Your task to perform on an android device: open app "Microsoft Outlook" (install if not already installed) Image 0: 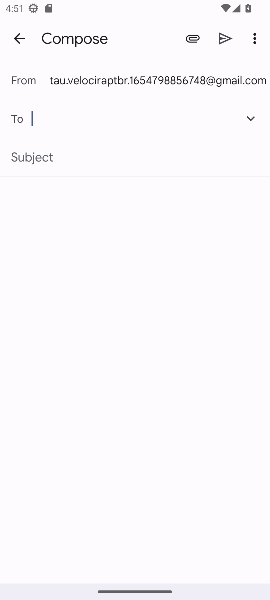
Step 0: drag from (133, 525) to (52, 141)
Your task to perform on an android device: open app "Microsoft Outlook" (install if not already installed) Image 1: 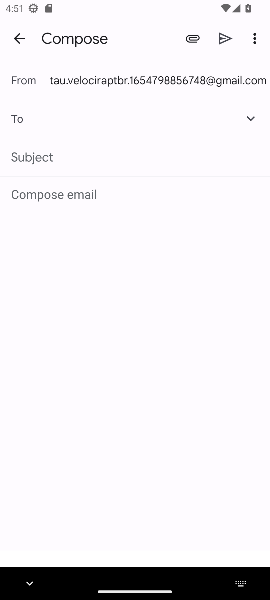
Step 1: press home button
Your task to perform on an android device: open app "Microsoft Outlook" (install if not already installed) Image 2: 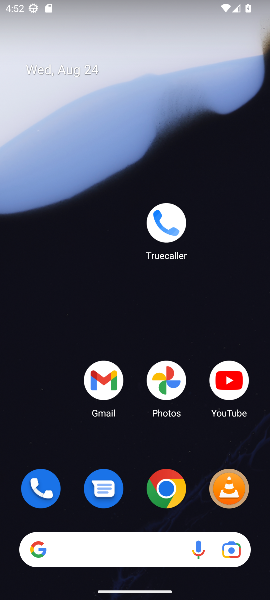
Step 2: drag from (133, 526) to (92, 166)
Your task to perform on an android device: open app "Microsoft Outlook" (install if not already installed) Image 3: 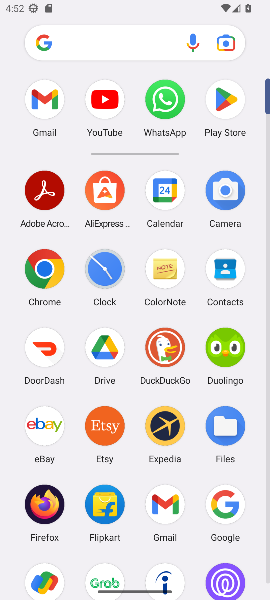
Step 3: click (232, 100)
Your task to perform on an android device: open app "Microsoft Outlook" (install if not already installed) Image 4: 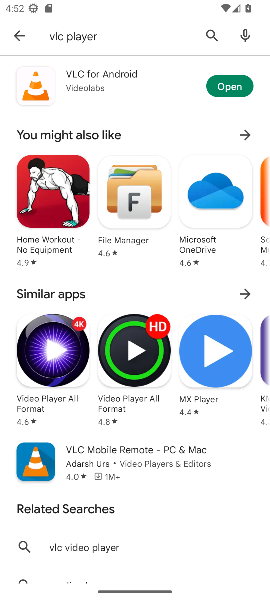
Step 4: click (206, 37)
Your task to perform on an android device: open app "Microsoft Outlook" (install if not already installed) Image 5: 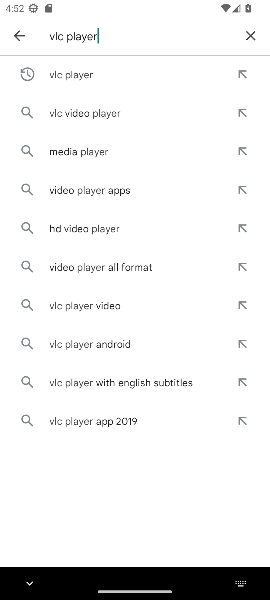
Step 5: click (246, 33)
Your task to perform on an android device: open app "Microsoft Outlook" (install if not already installed) Image 6: 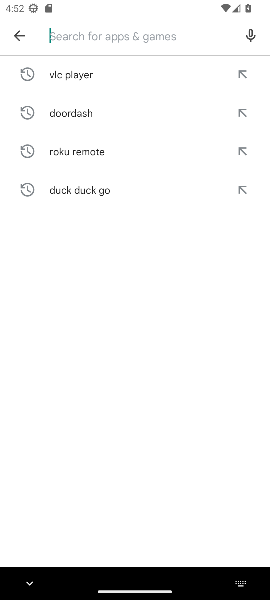
Step 6: type "microsft "
Your task to perform on an android device: open app "Microsoft Outlook" (install if not already installed) Image 7: 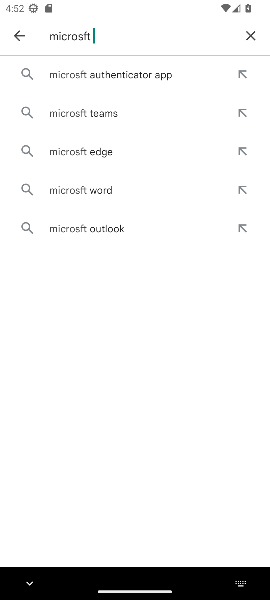
Step 7: click (118, 236)
Your task to perform on an android device: open app "Microsoft Outlook" (install if not already installed) Image 8: 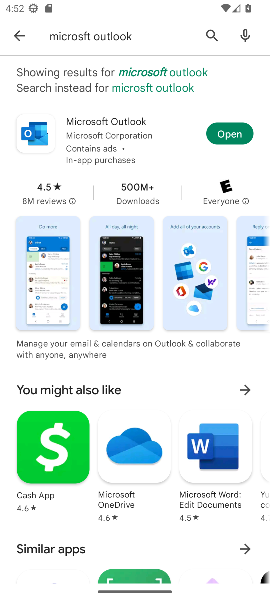
Step 8: click (228, 139)
Your task to perform on an android device: open app "Microsoft Outlook" (install if not already installed) Image 9: 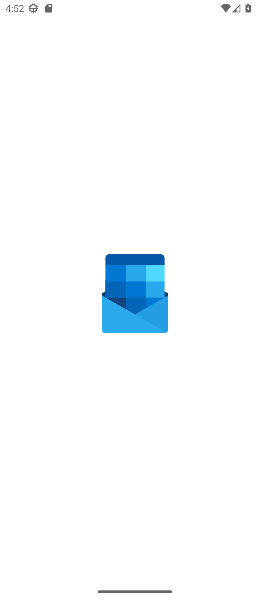
Step 9: task complete